Your task to perform on an android device: turn off javascript in the chrome app Image 0: 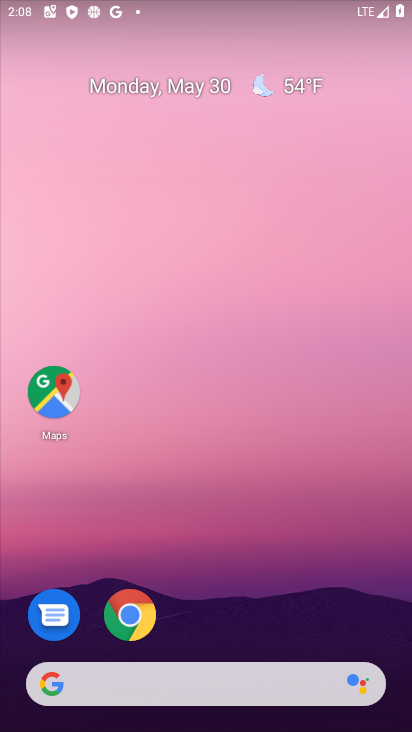
Step 0: click (133, 609)
Your task to perform on an android device: turn off javascript in the chrome app Image 1: 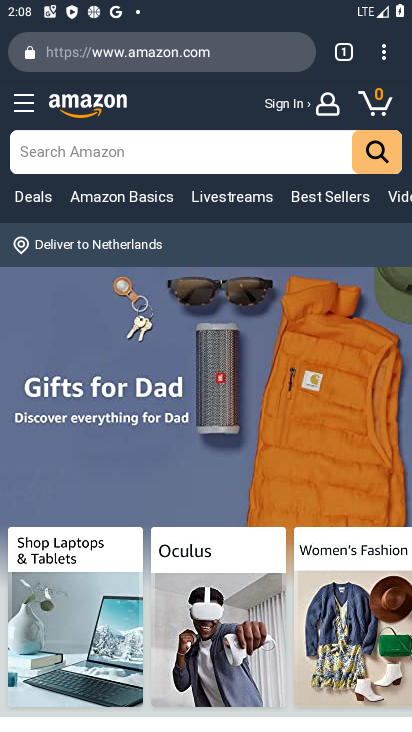
Step 1: click (391, 55)
Your task to perform on an android device: turn off javascript in the chrome app Image 2: 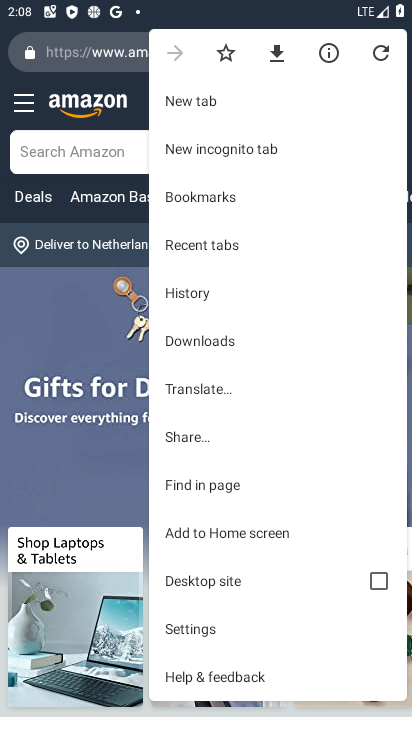
Step 2: click (227, 622)
Your task to perform on an android device: turn off javascript in the chrome app Image 3: 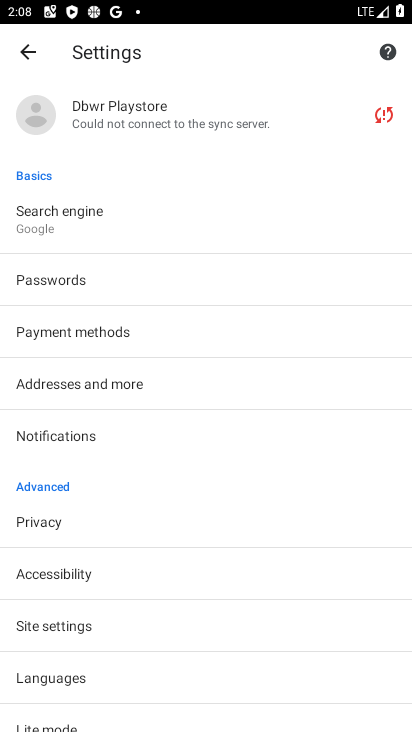
Step 3: click (62, 623)
Your task to perform on an android device: turn off javascript in the chrome app Image 4: 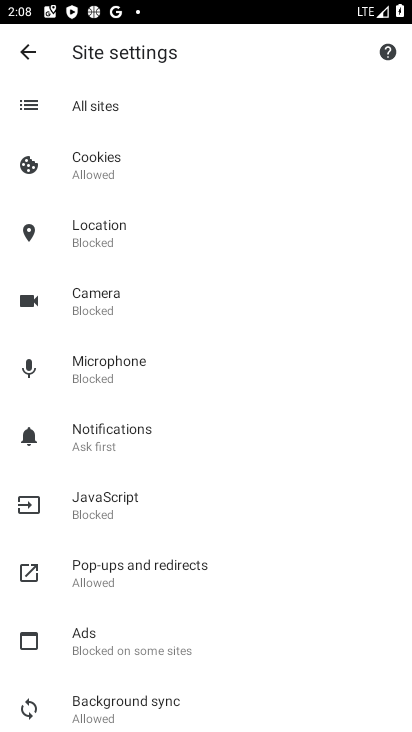
Step 4: click (102, 514)
Your task to perform on an android device: turn off javascript in the chrome app Image 5: 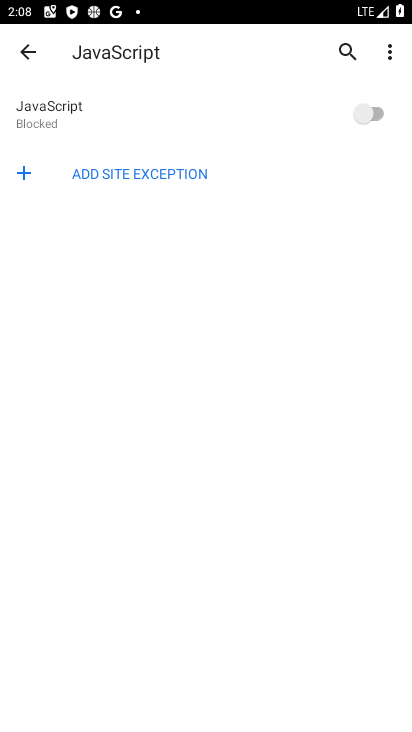
Step 5: task complete